Your task to perform on an android device: change the clock display to digital Image 0: 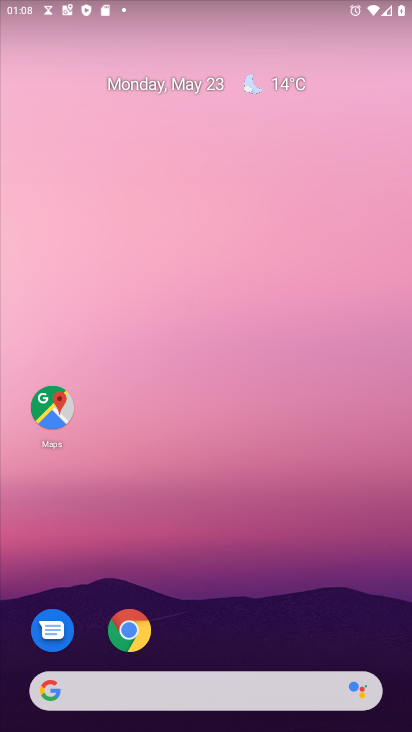
Step 0: drag from (272, 582) to (264, 11)
Your task to perform on an android device: change the clock display to digital Image 1: 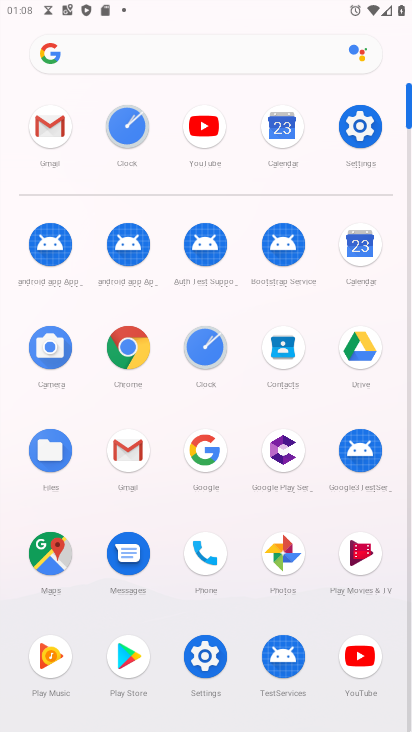
Step 1: click (215, 344)
Your task to perform on an android device: change the clock display to digital Image 2: 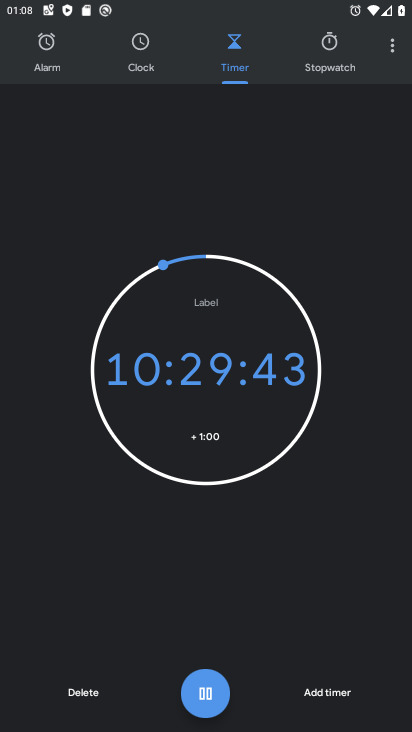
Step 2: click (385, 53)
Your task to perform on an android device: change the clock display to digital Image 3: 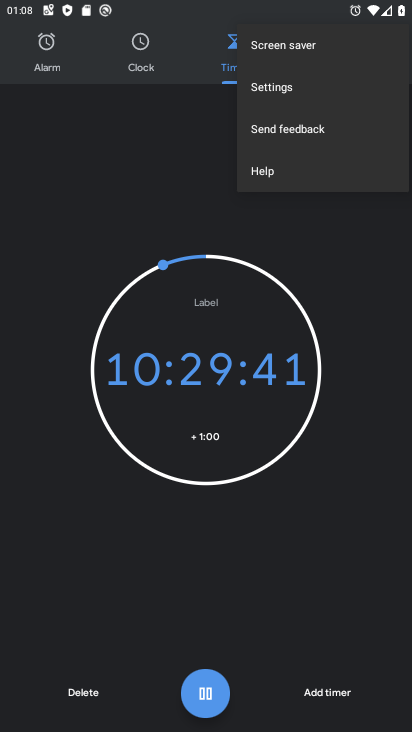
Step 3: click (304, 92)
Your task to perform on an android device: change the clock display to digital Image 4: 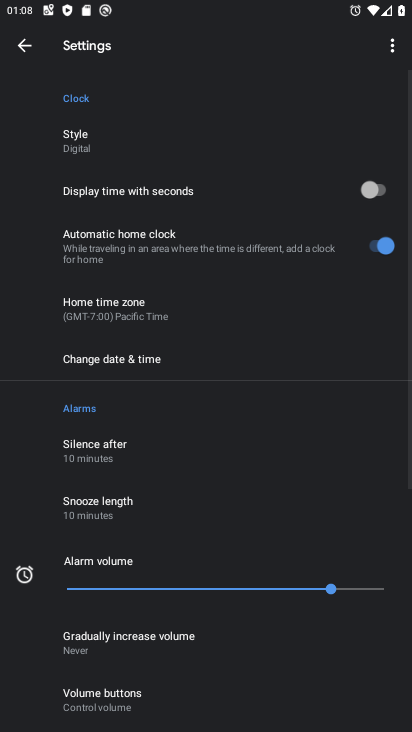
Step 4: click (155, 136)
Your task to perform on an android device: change the clock display to digital Image 5: 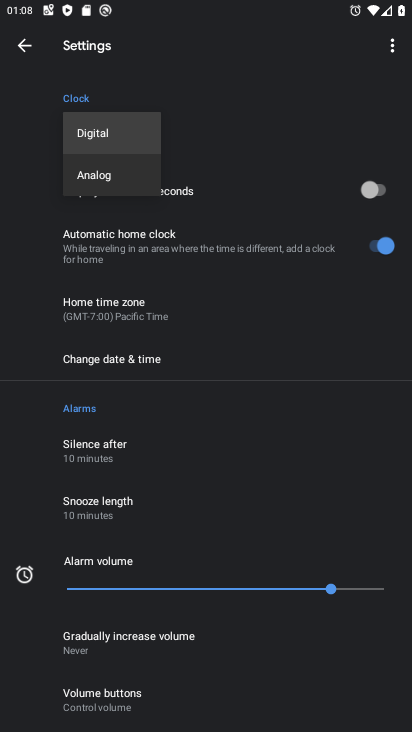
Step 5: click (139, 136)
Your task to perform on an android device: change the clock display to digital Image 6: 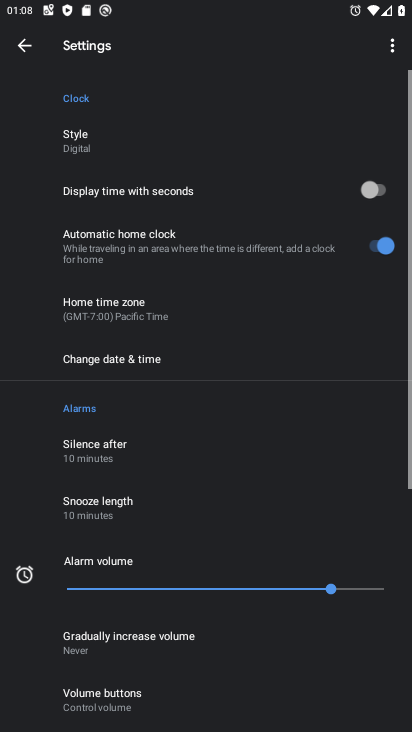
Step 6: task complete